Your task to perform on an android device: What's on my calendar today? Image 0: 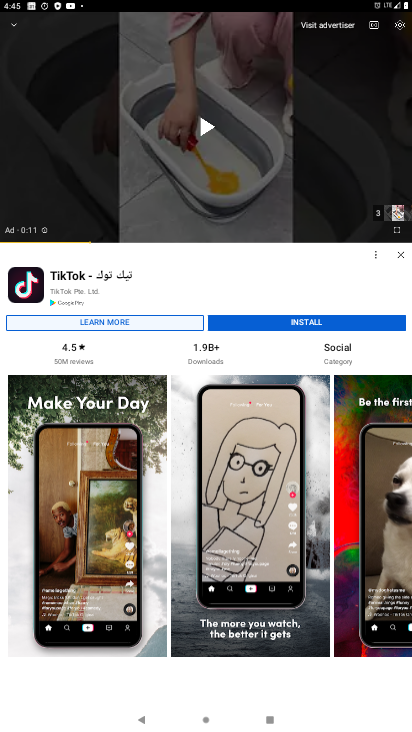
Step 0: press home button
Your task to perform on an android device: What's on my calendar today? Image 1: 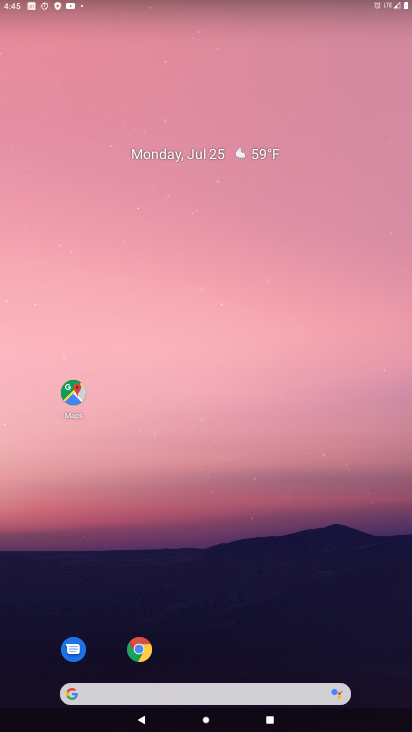
Step 1: drag from (297, 624) to (246, 56)
Your task to perform on an android device: What's on my calendar today? Image 2: 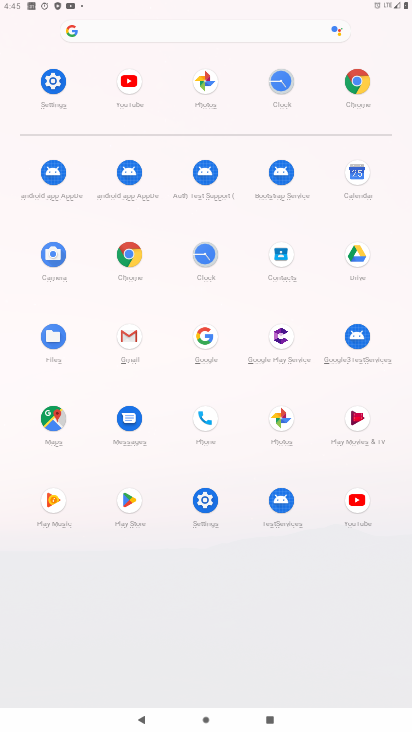
Step 2: click (370, 180)
Your task to perform on an android device: What's on my calendar today? Image 3: 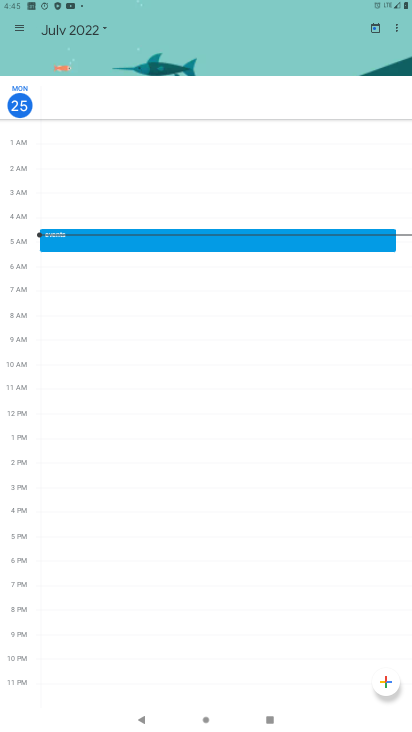
Step 3: click (14, 25)
Your task to perform on an android device: What's on my calendar today? Image 4: 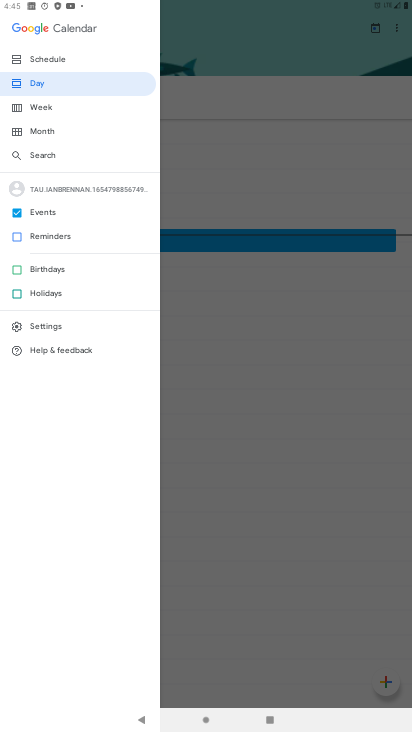
Step 4: click (79, 90)
Your task to perform on an android device: What's on my calendar today? Image 5: 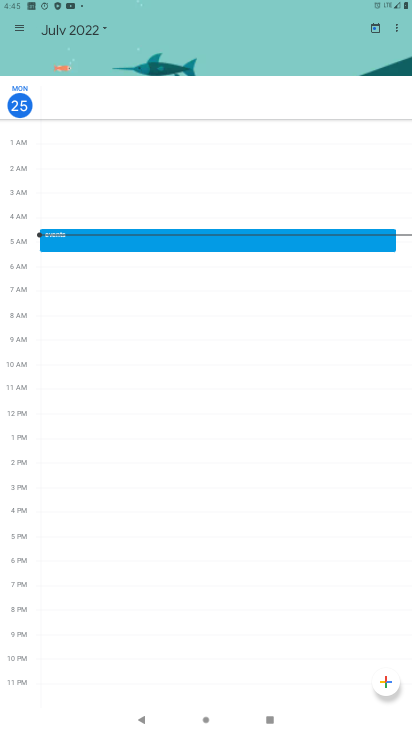
Step 5: task complete